Your task to perform on an android device: Go to Amazon Image 0: 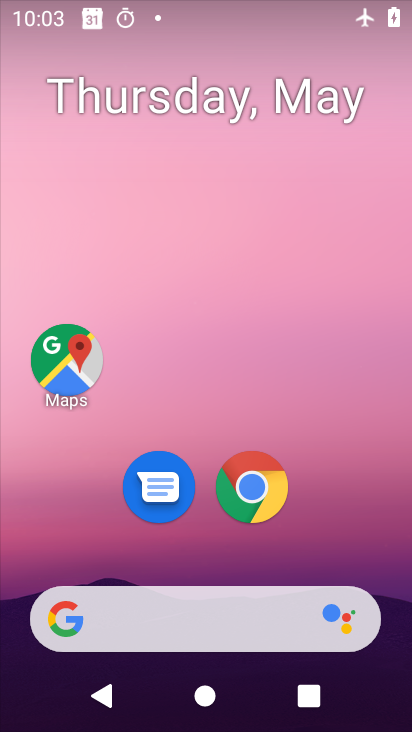
Step 0: drag from (280, 590) to (275, 181)
Your task to perform on an android device: Go to Amazon Image 1: 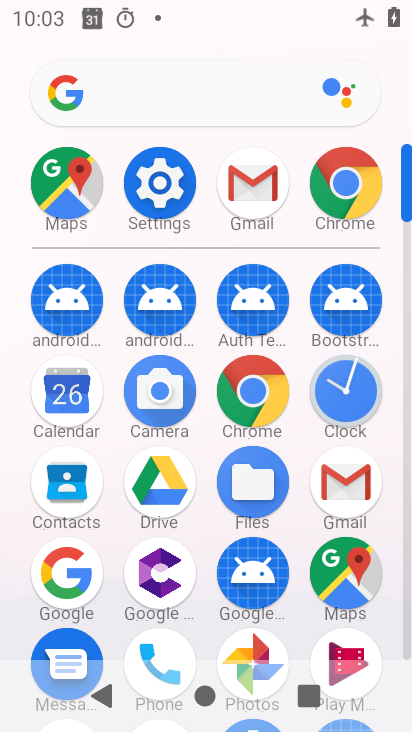
Step 1: click (261, 405)
Your task to perform on an android device: Go to Amazon Image 2: 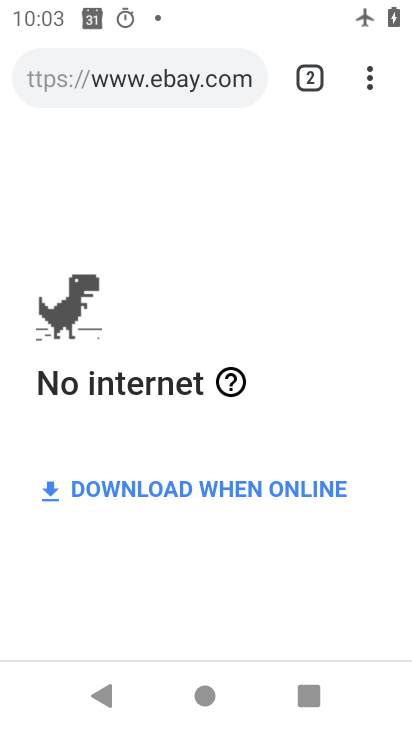
Step 2: click (210, 82)
Your task to perform on an android device: Go to Amazon Image 3: 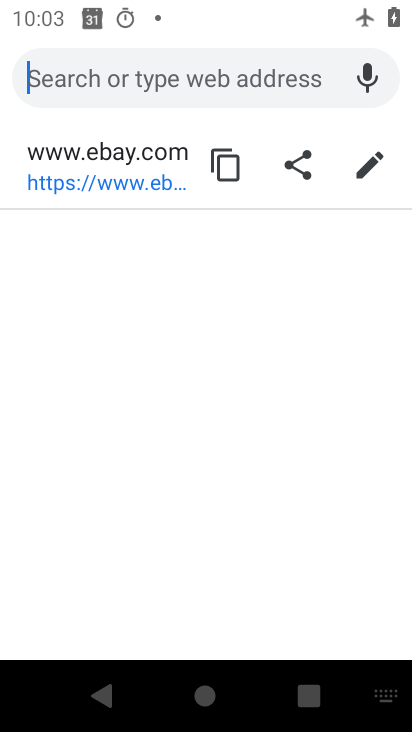
Step 3: type "amazon"
Your task to perform on an android device: Go to Amazon Image 4: 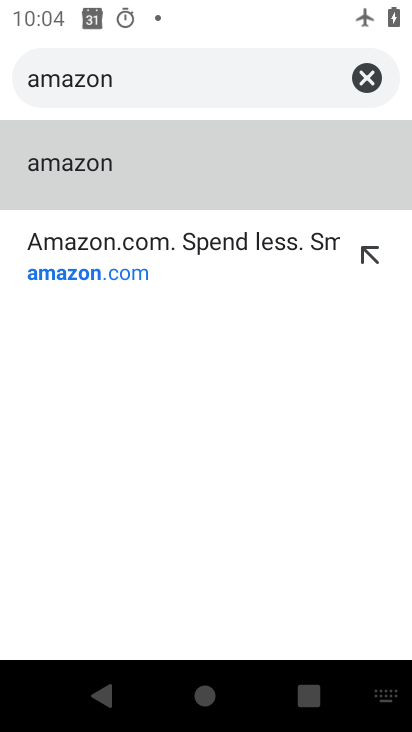
Step 4: click (223, 267)
Your task to perform on an android device: Go to Amazon Image 5: 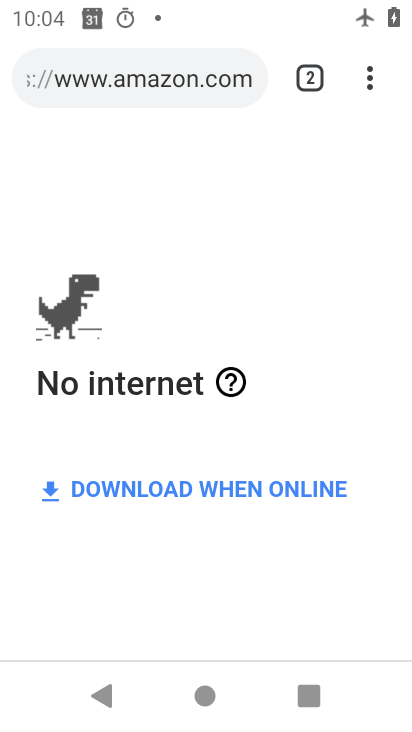
Step 5: task complete